Your task to perform on an android device: turn on showing notifications on the lock screen Image 0: 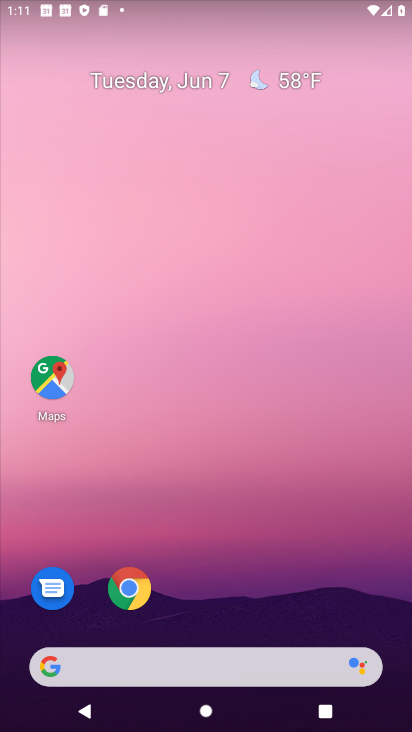
Step 0: task complete